Your task to perform on an android device: Search for pizza restaurants on Maps Image 0: 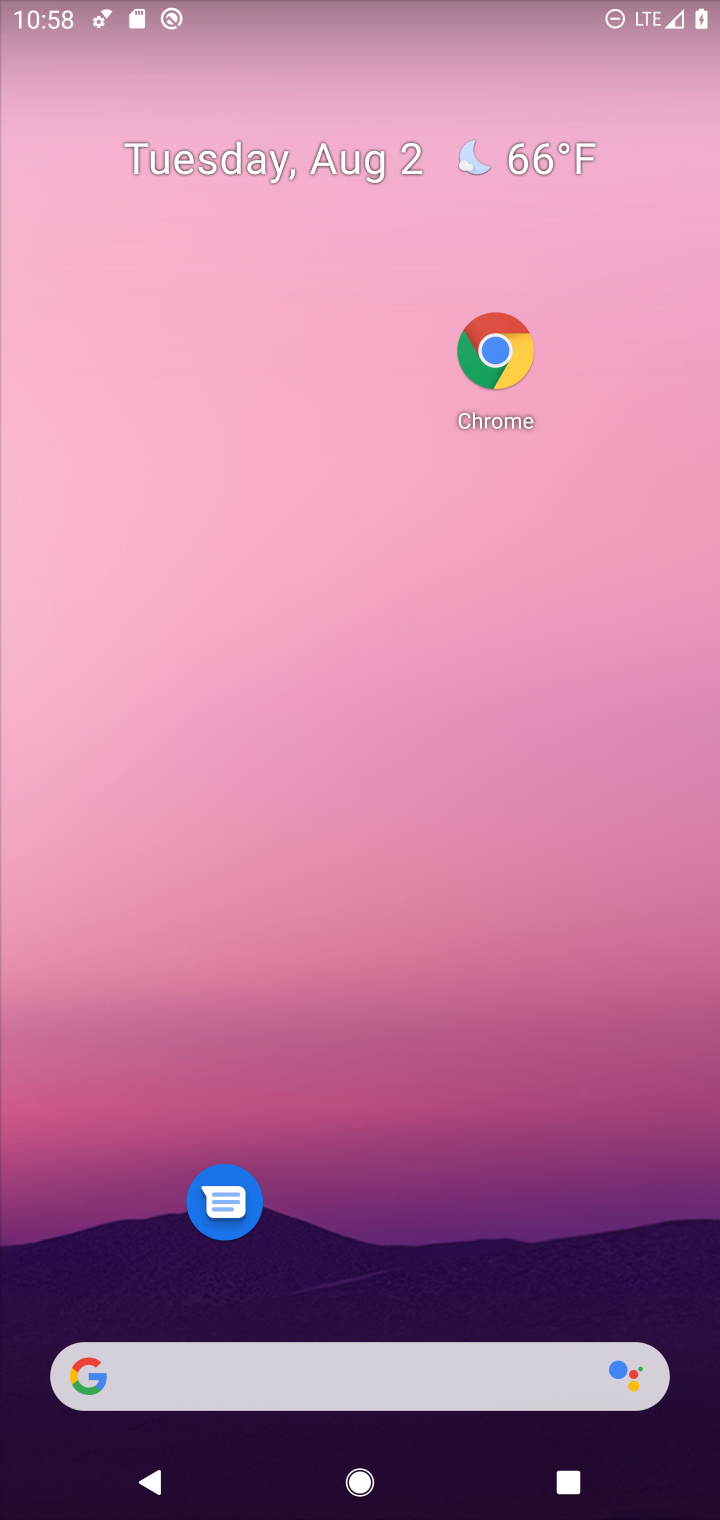
Step 0: drag from (435, 1198) to (368, 142)
Your task to perform on an android device: Search for pizza restaurants on Maps Image 1: 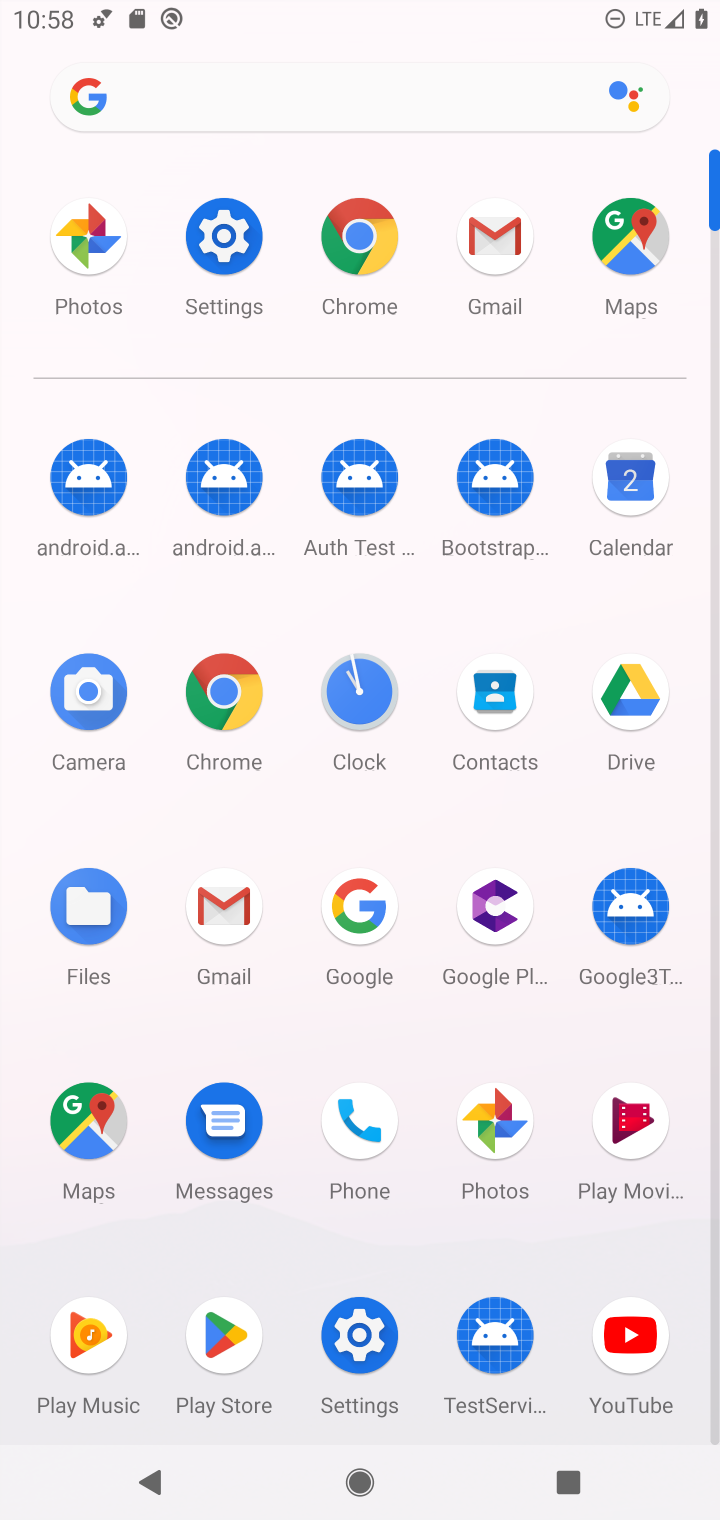
Step 1: click (622, 240)
Your task to perform on an android device: Search for pizza restaurants on Maps Image 2: 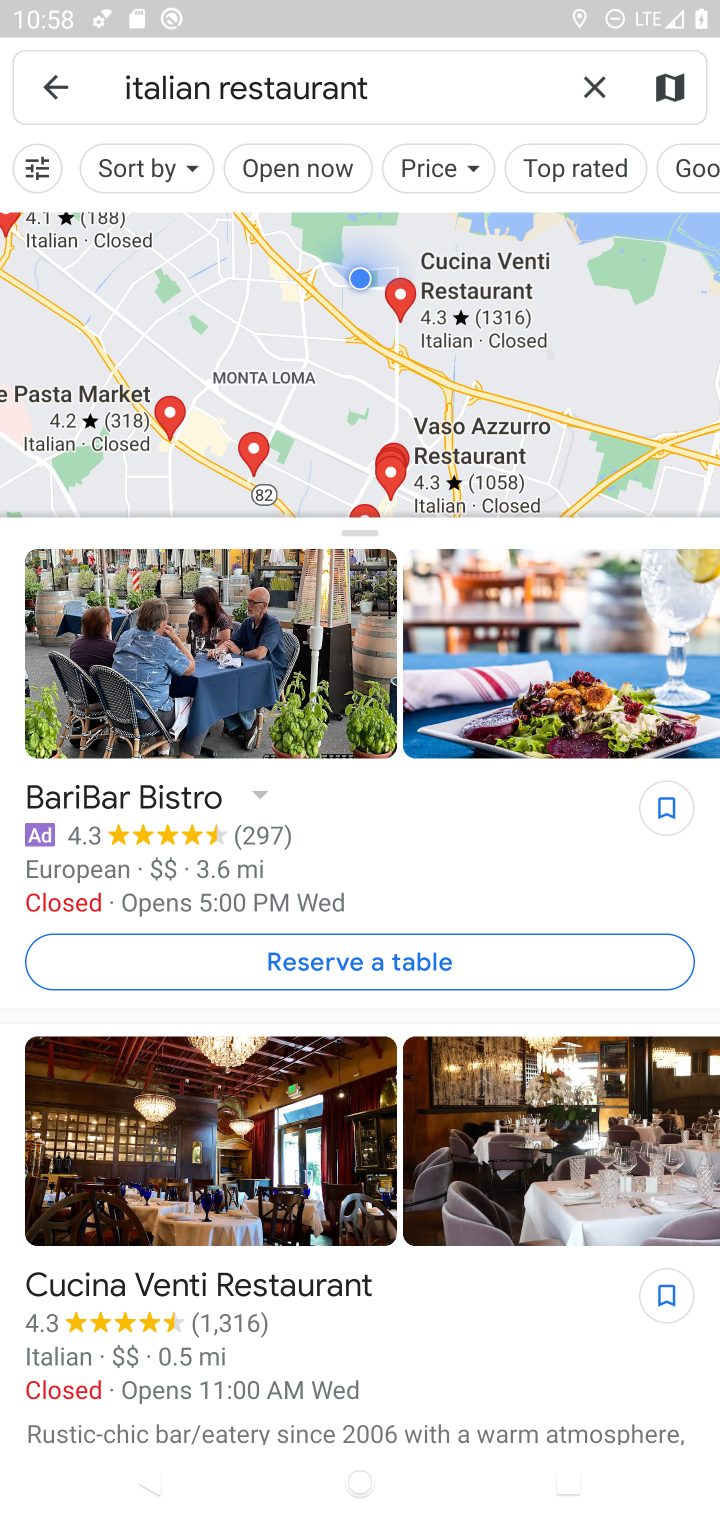
Step 2: click (592, 92)
Your task to perform on an android device: Search for pizza restaurants on Maps Image 3: 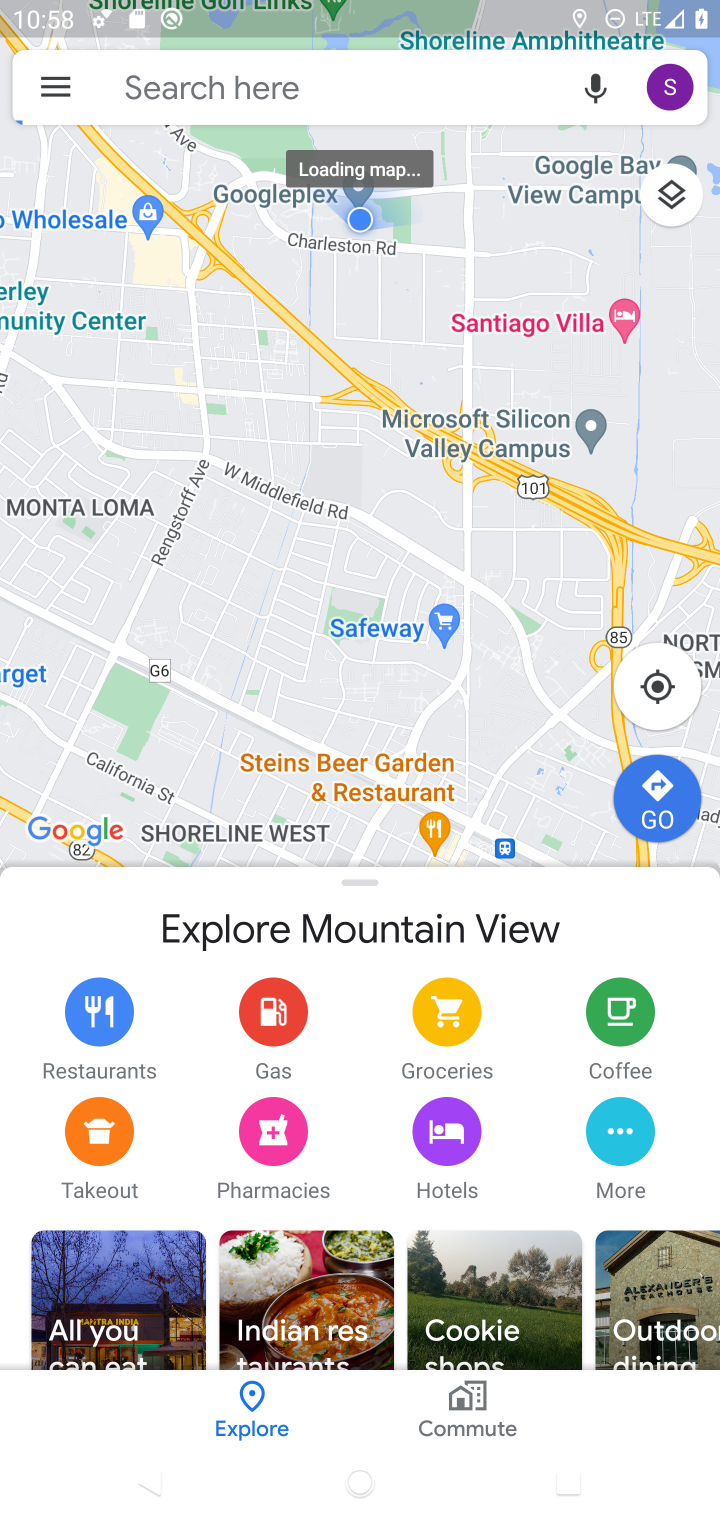
Step 3: type "pizza restaurants"
Your task to perform on an android device: Search for pizza restaurants on Maps Image 4: 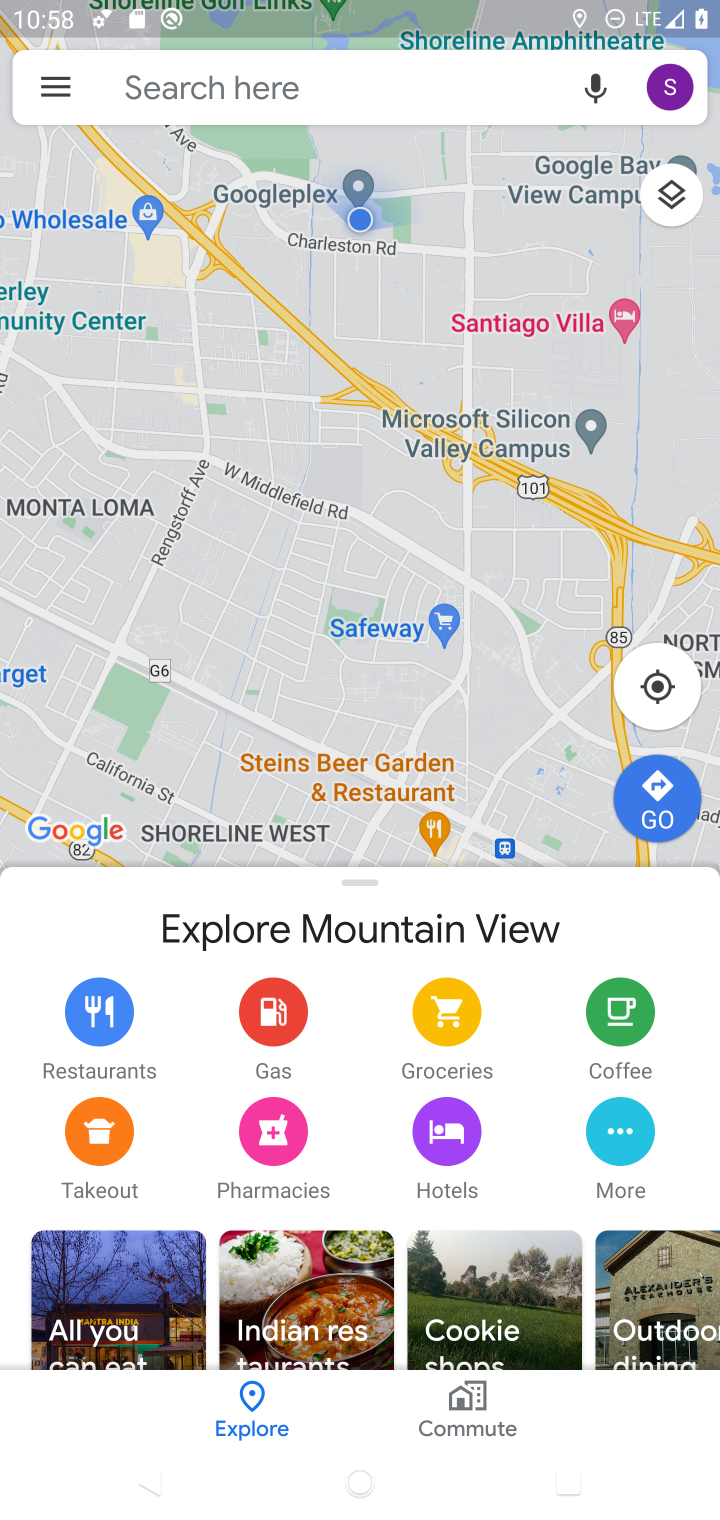
Step 4: click (161, 91)
Your task to perform on an android device: Search for pizza restaurants on Maps Image 5: 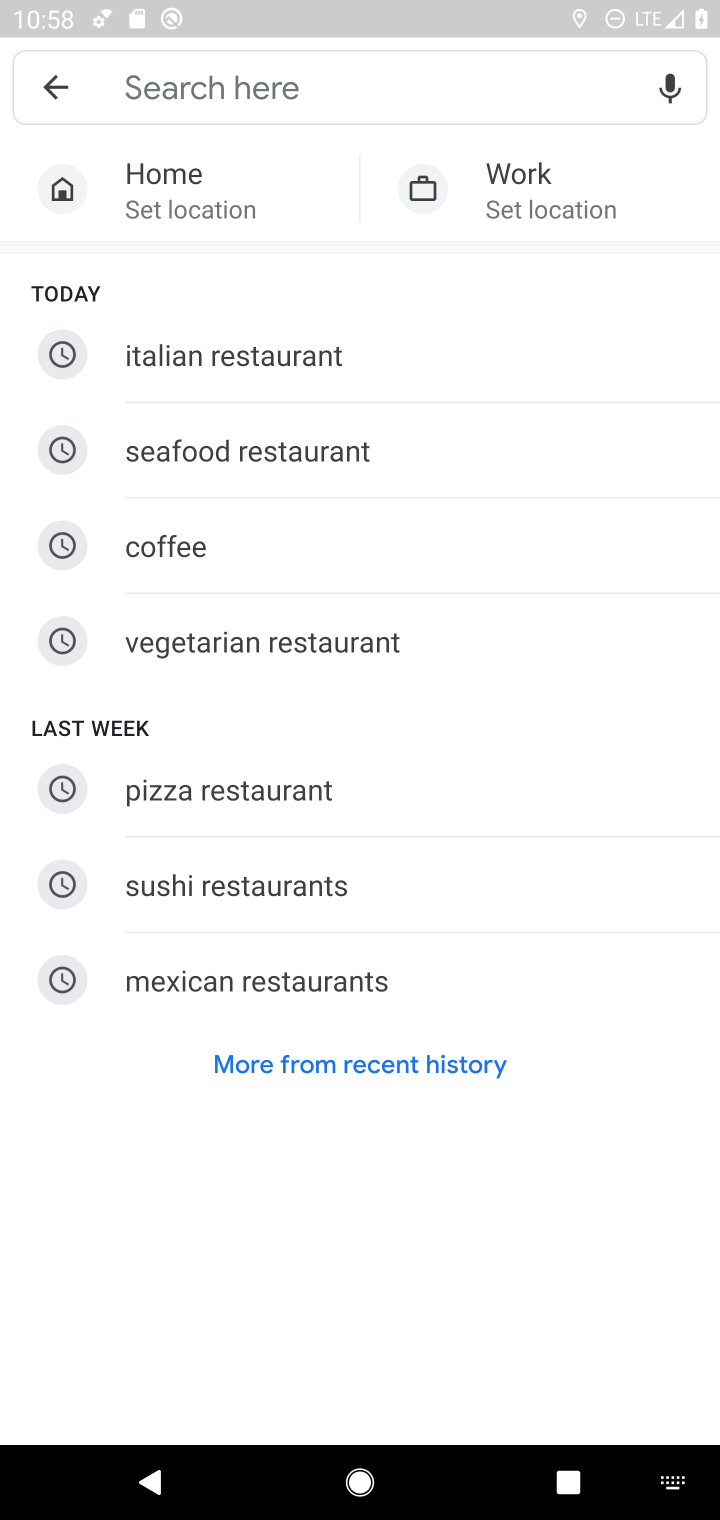
Step 5: type "pizza restaurants"
Your task to perform on an android device: Search for pizza restaurants on Maps Image 6: 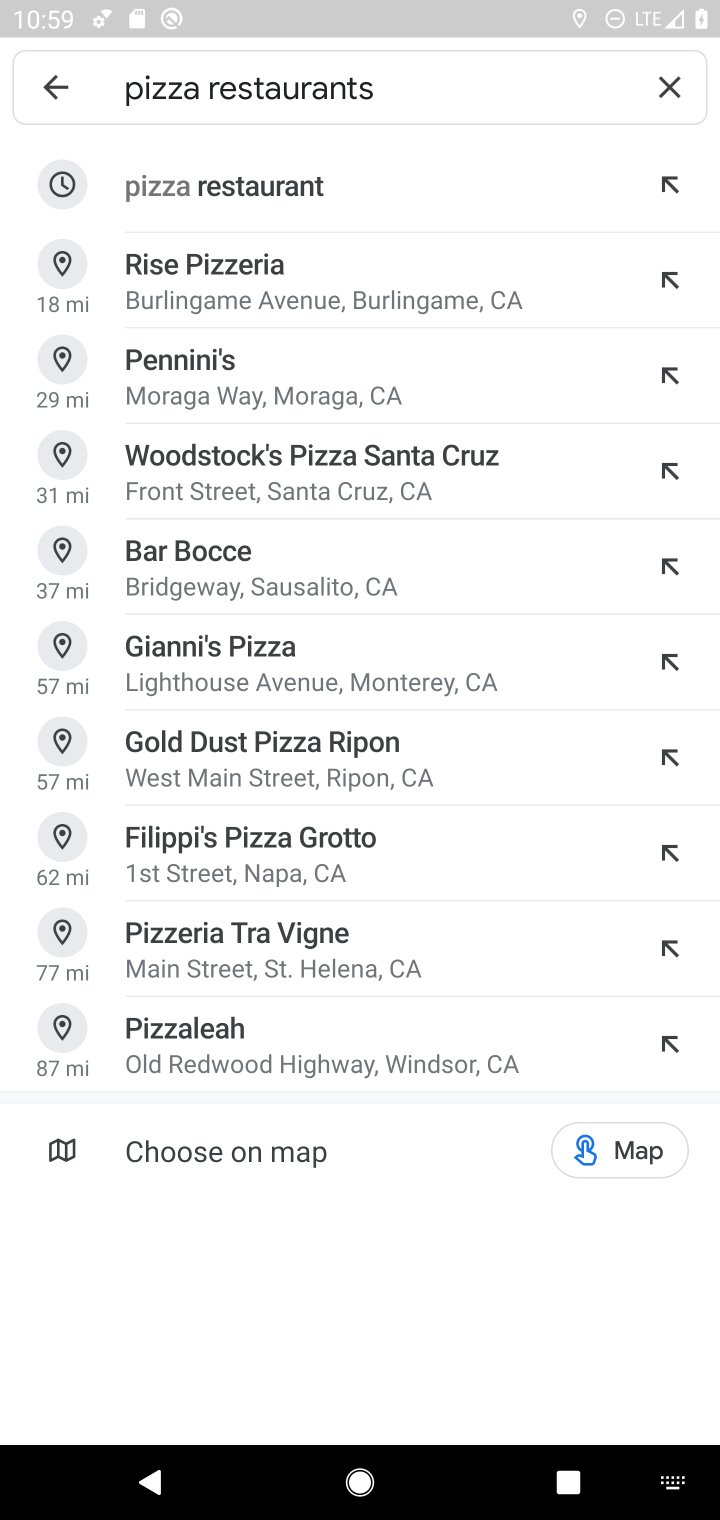
Step 6: click (221, 204)
Your task to perform on an android device: Search for pizza restaurants on Maps Image 7: 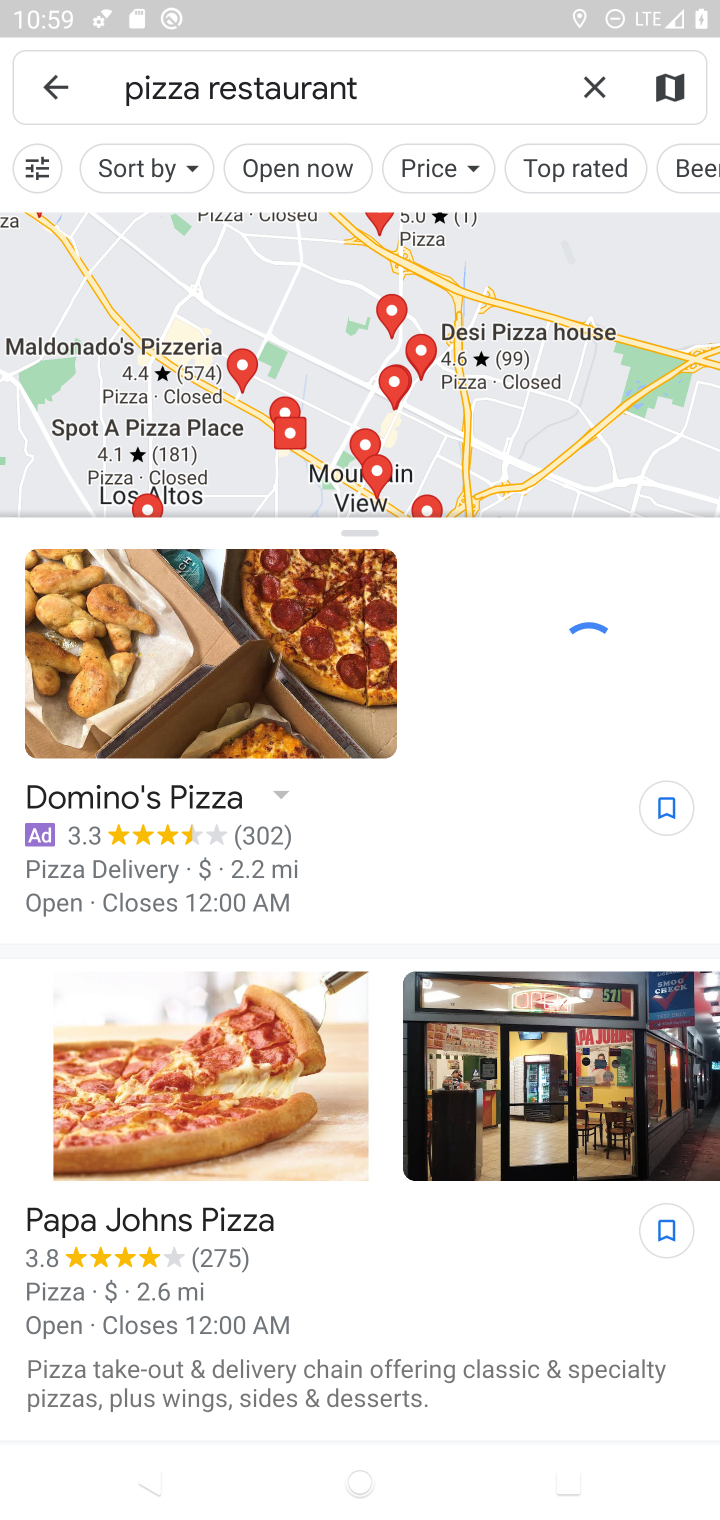
Step 7: task complete